Your task to perform on an android device: open app "Google Chrome" Image 0: 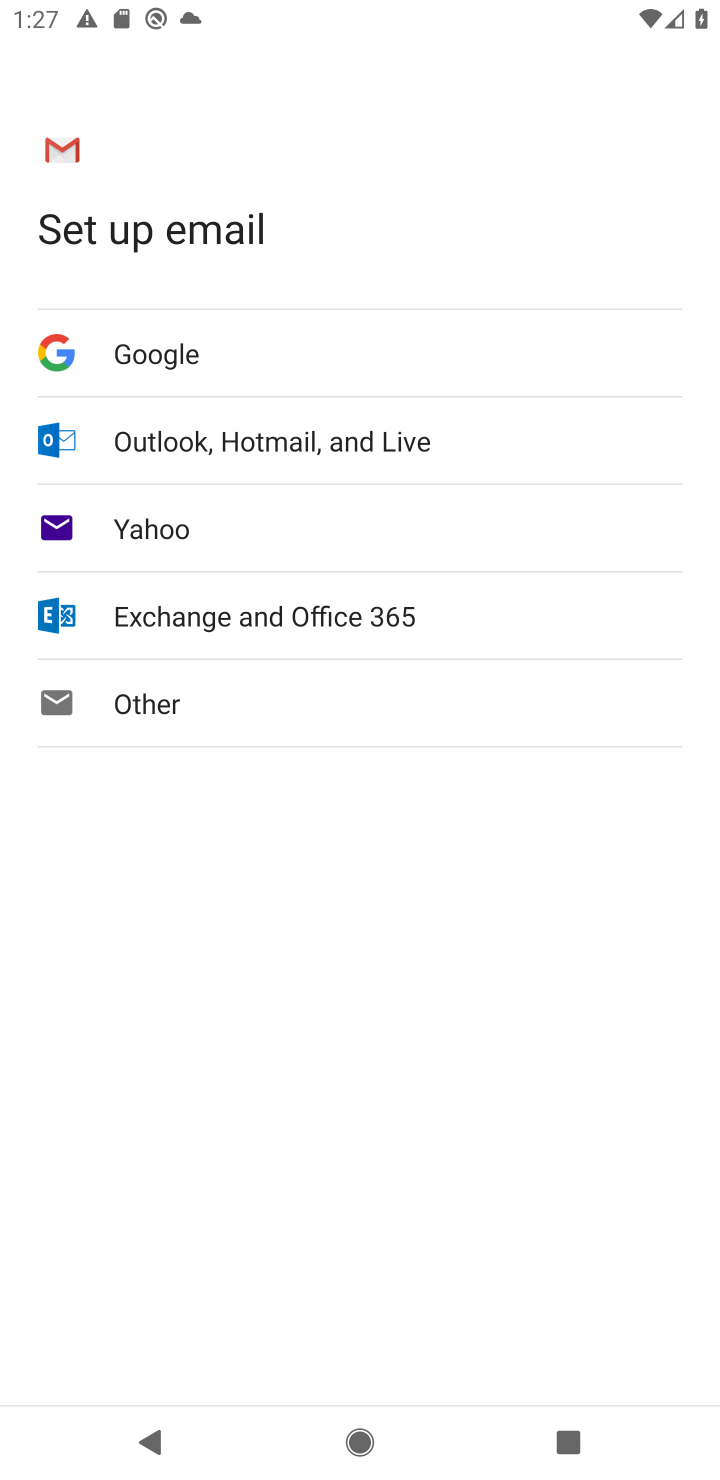
Step 0: press home button
Your task to perform on an android device: open app "Google Chrome" Image 1: 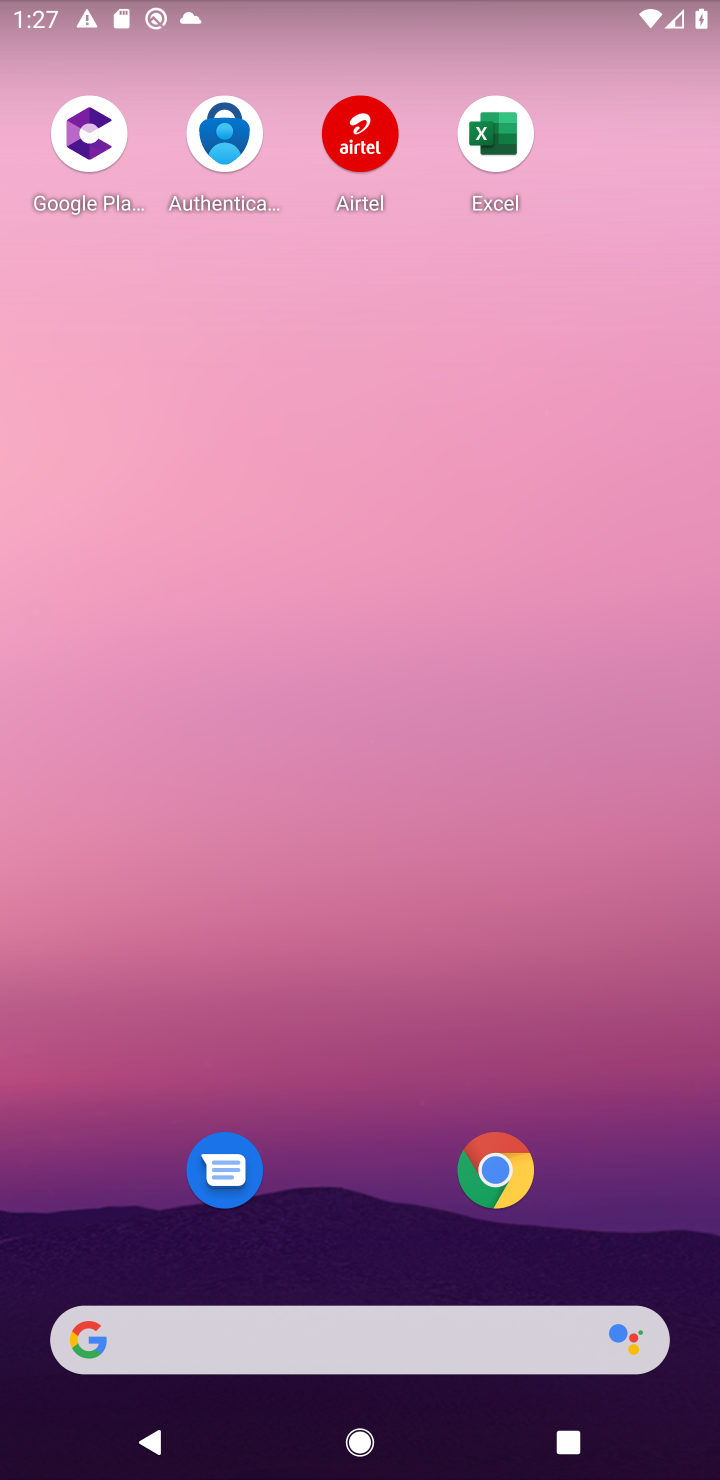
Step 1: click (518, 1212)
Your task to perform on an android device: open app "Google Chrome" Image 2: 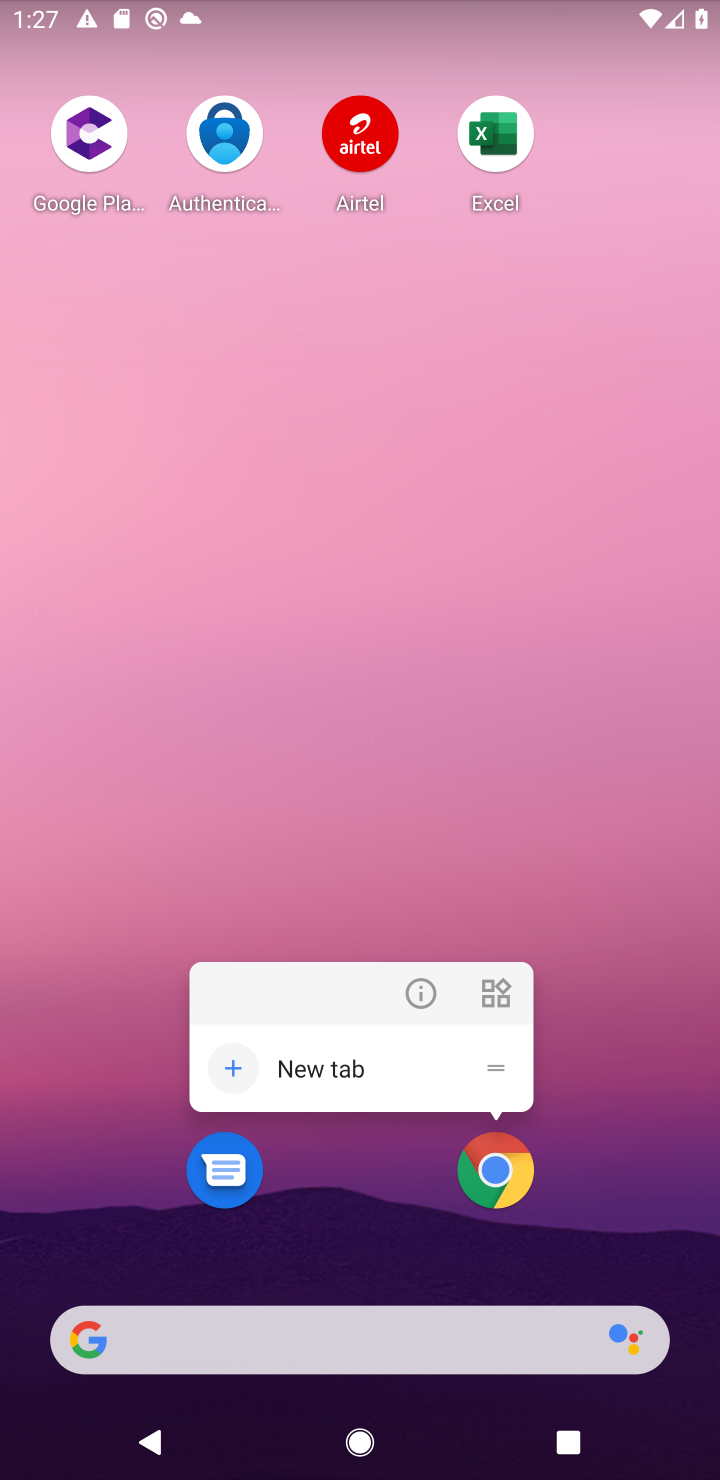
Step 2: click (511, 1191)
Your task to perform on an android device: open app "Google Chrome" Image 3: 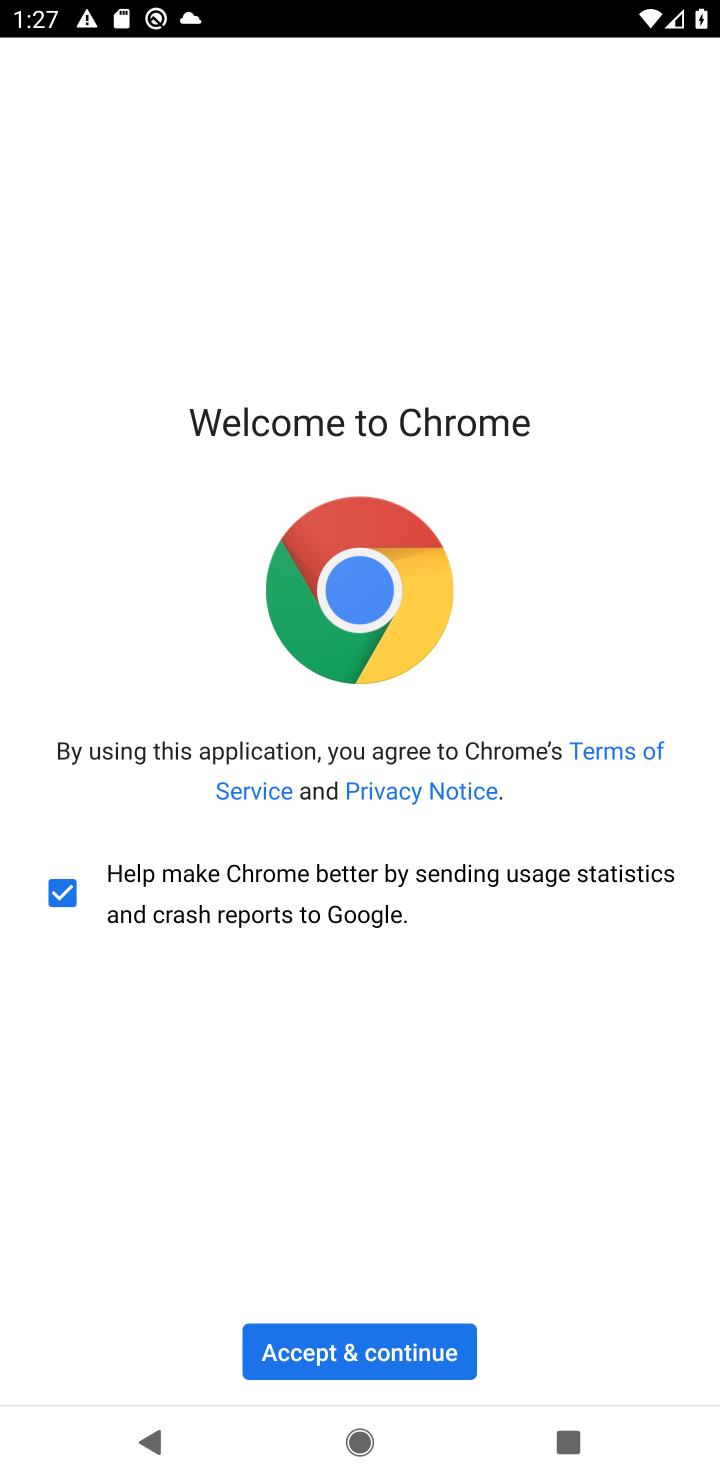
Step 3: task complete